Your task to perform on an android device: turn off location Image 0: 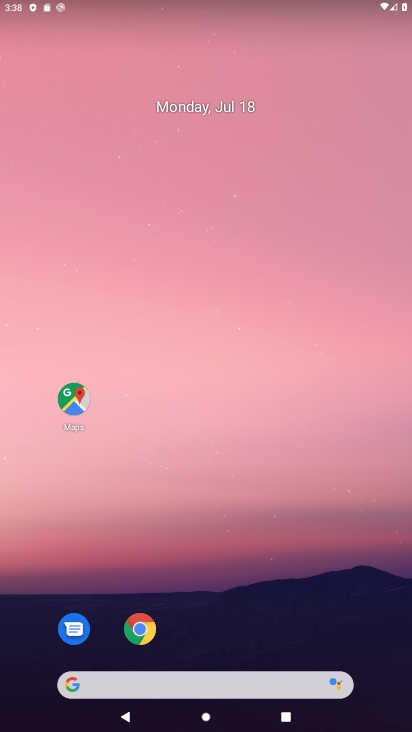
Step 0: drag from (209, 670) to (217, 95)
Your task to perform on an android device: turn off location Image 1: 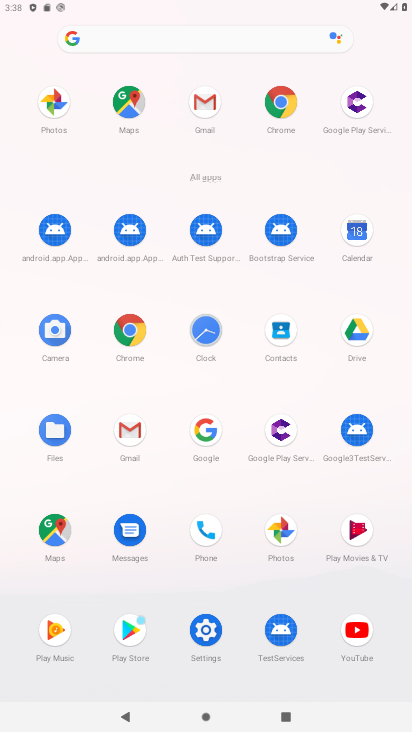
Step 1: click (203, 626)
Your task to perform on an android device: turn off location Image 2: 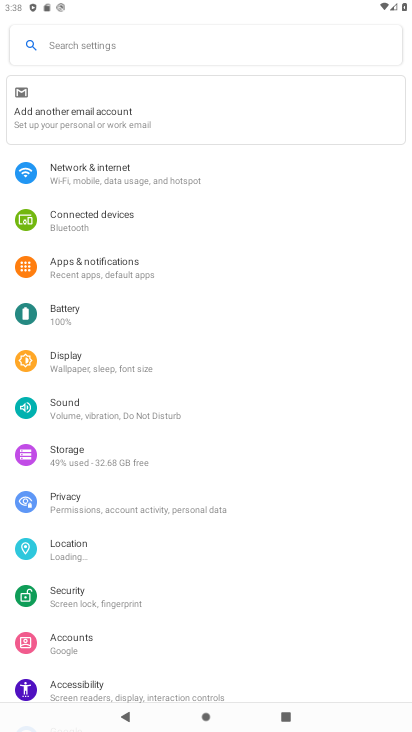
Step 2: drag from (153, 539) to (222, 241)
Your task to perform on an android device: turn off location Image 3: 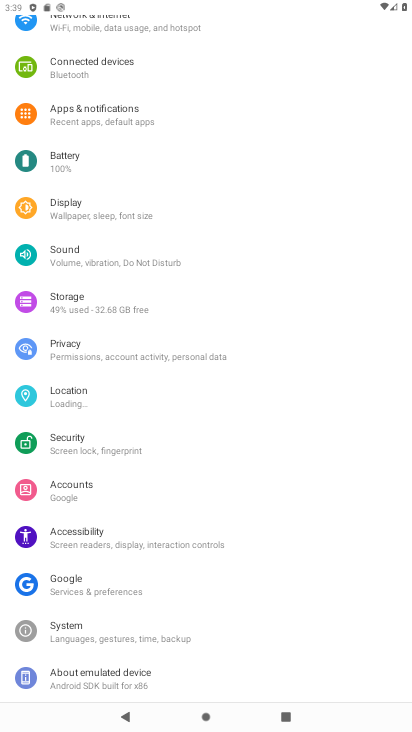
Step 3: click (122, 391)
Your task to perform on an android device: turn off location Image 4: 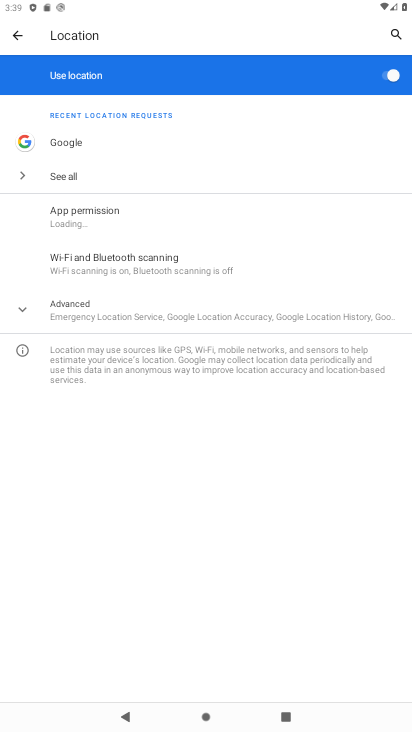
Step 4: click (385, 74)
Your task to perform on an android device: turn off location Image 5: 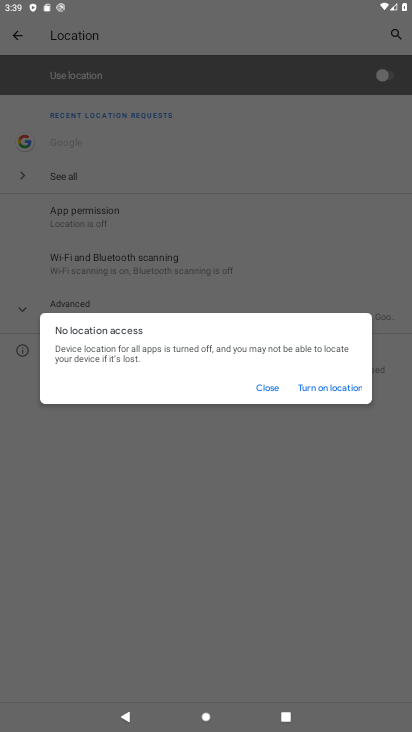
Step 5: click (276, 386)
Your task to perform on an android device: turn off location Image 6: 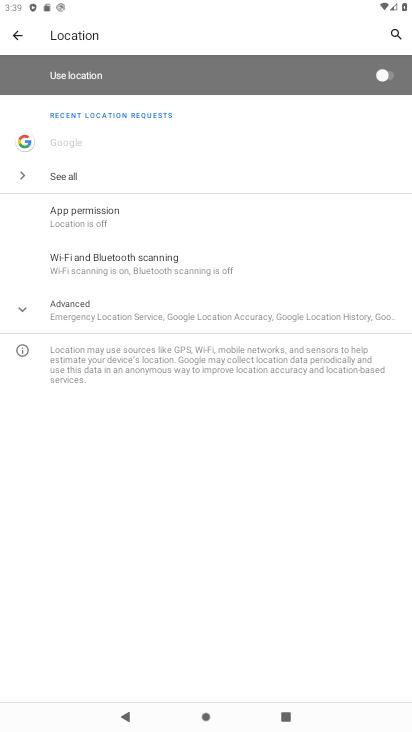
Step 6: task complete